Your task to perform on an android device: Open eBay Image 0: 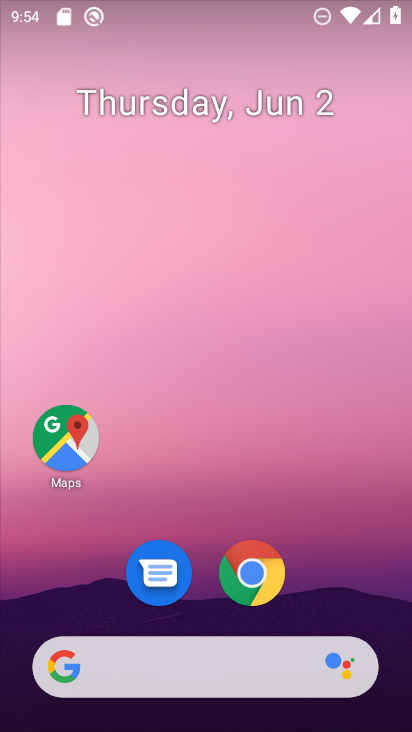
Step 0: drag from (331, 501) to (288, 101)
Your task to perform on an android device: Open eBay Image 1: 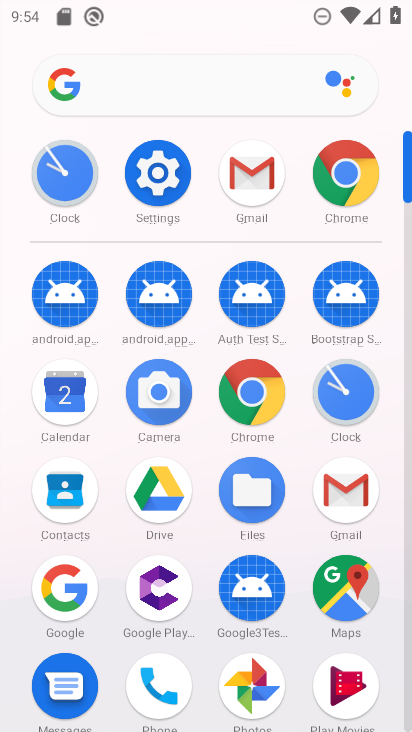
Step 1: click (347, 178)
Your task to perform on an android device: Open eBay Image 2: 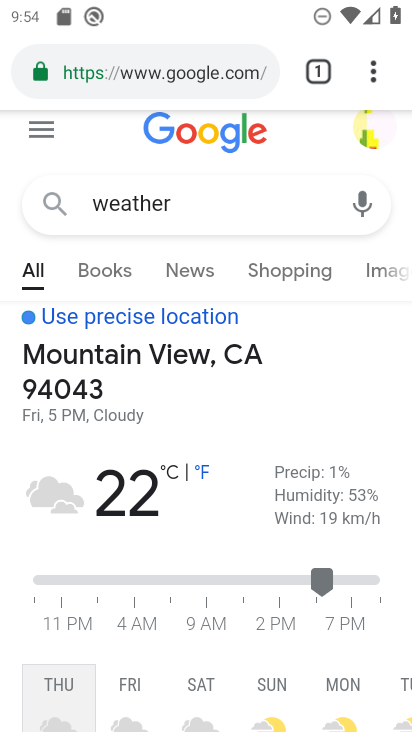
Step 2: click (223, 64)
Your task to perform on an android device: Open eBay Image 3: 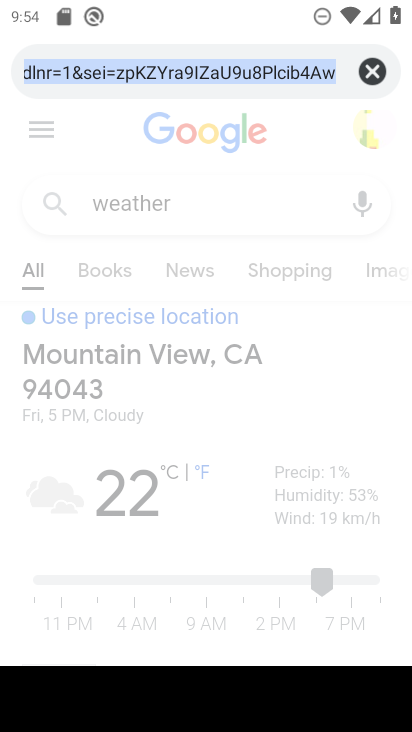
Step 3: type "ebay"
Your task to perform on an android device: Open eBay Image 4: 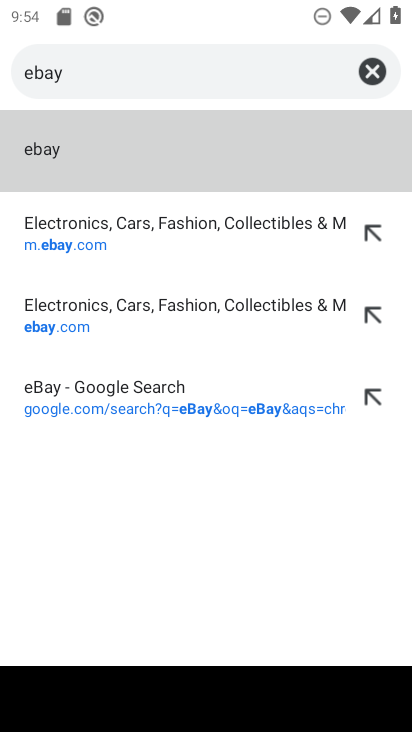
Step 4: click (41, 143)
Your task to perform on an android device: Open eBay Image 5: 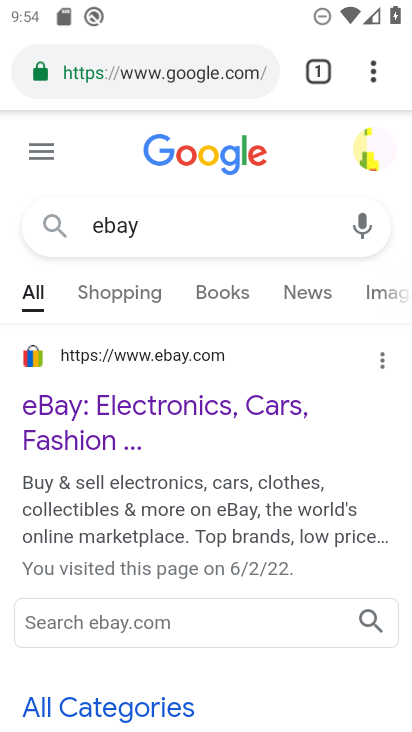
Step 5: click (146, 401)
Your task to perform on an android device: Open eBay Image 6: 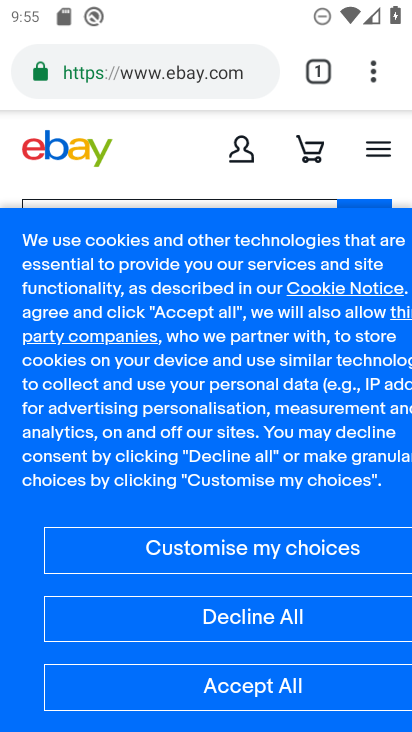
Step 6: task complete